Your task to perform on an android device: change timer sound Image 0: 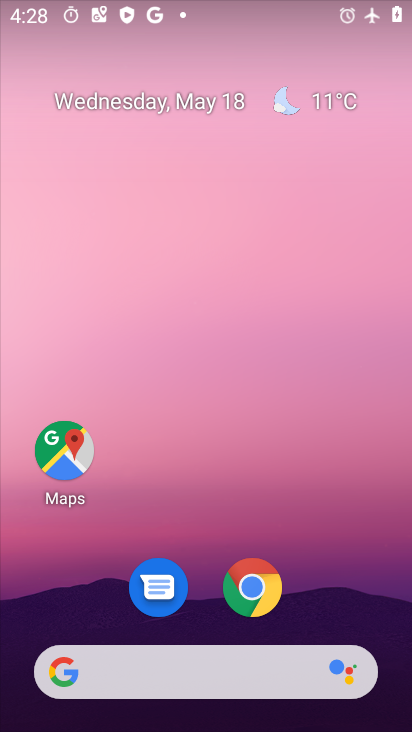
Step 0: drag from (277, 658) to (204, 139)
Your task to perform on an android device: change timer sound Image 1: 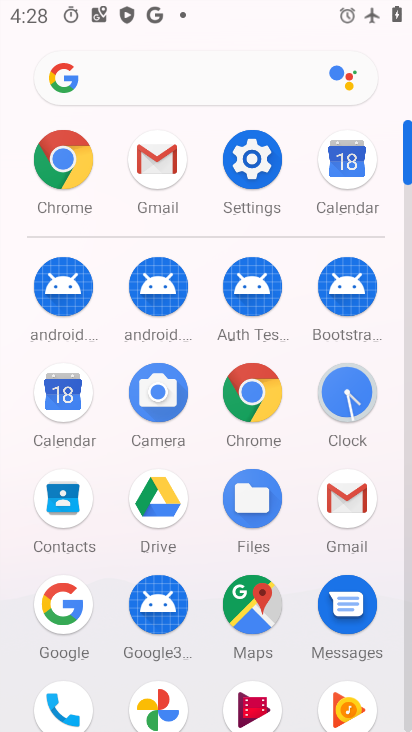
Step 1: click (359, 425)
Your task to perform on an android device: change timer sound Image 2: 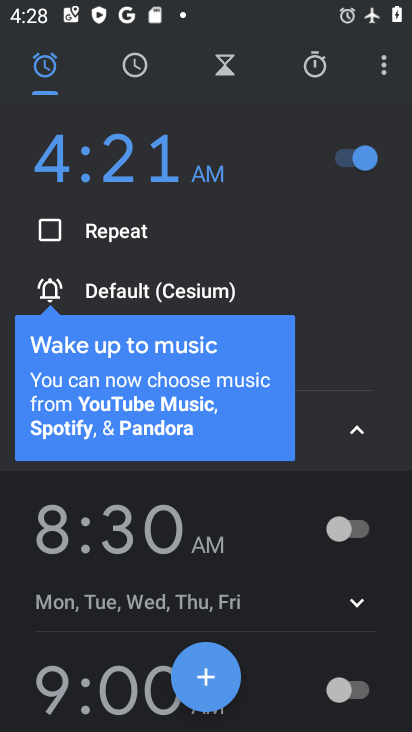
Step 2: click (395, 76)
Your task to perform on an android device: change timer sound Image 3: 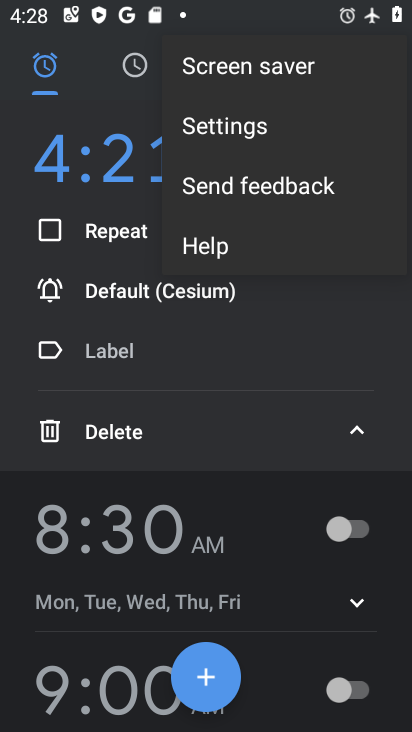
Step 3: click (258, 125)
Your task to perform on an android device: change timer sound Image 4: 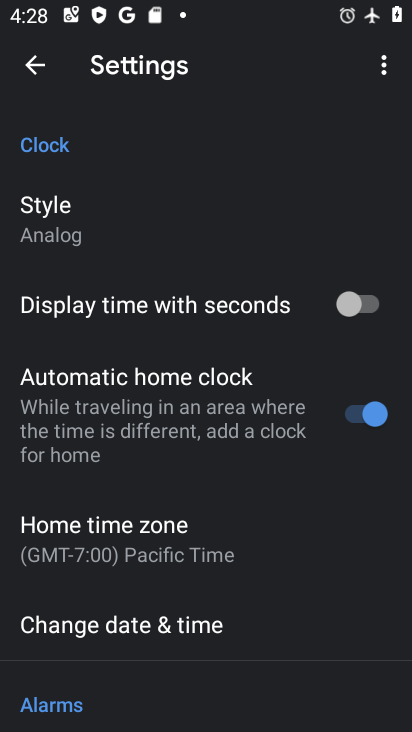
Step 4: drag from (157, 503) to (155, 124)
Your task to perform on an android device: change timer sound Image 5: 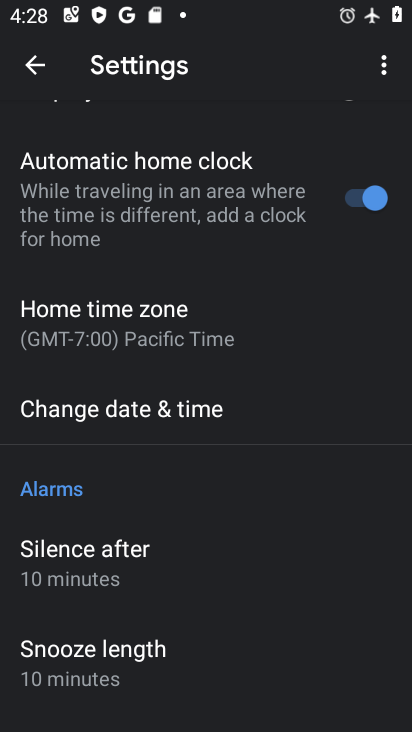
Step 5: drag from (166, 584) to (181, 373)
Your task to perform on an android device: change timer sound Image 6: 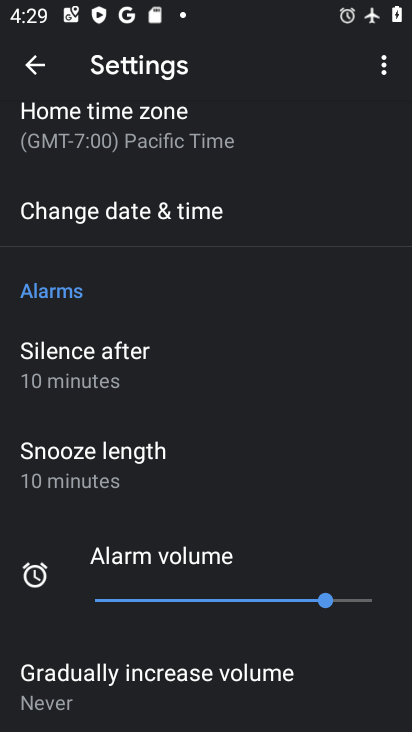
Step 6: drag from (164, 605) to (158, 293)
Your task to perform on an android device: change timer sound Image 7: 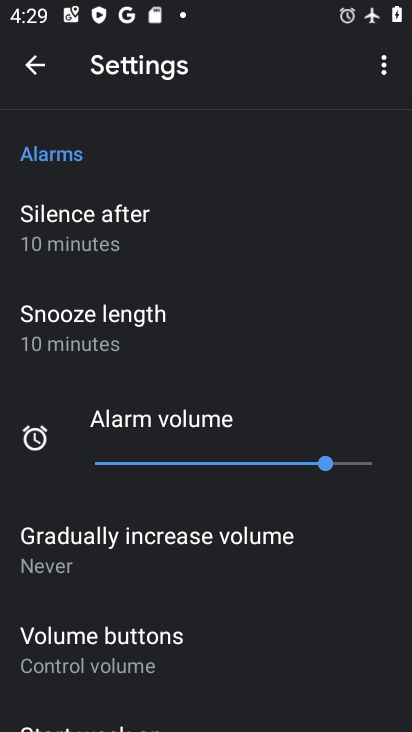
Step 7: drag from (139, 589) to (123, 120)
Your task to perform on an android device: change timer sound Image 8: 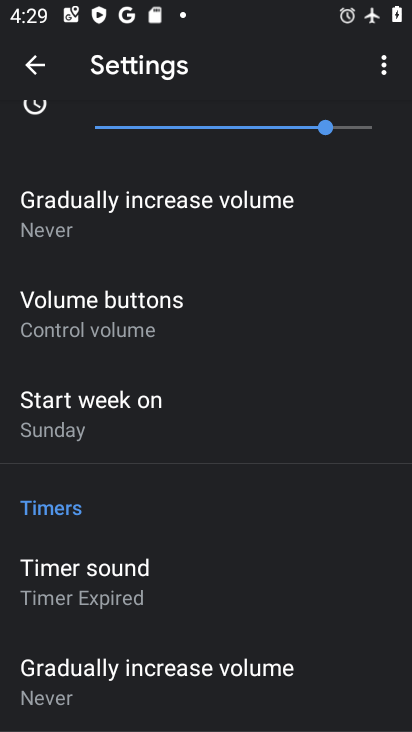
Step 8: drag from (135, 429) to (191, 6)
Your task to perform on an android device: change timer sound Image 9: 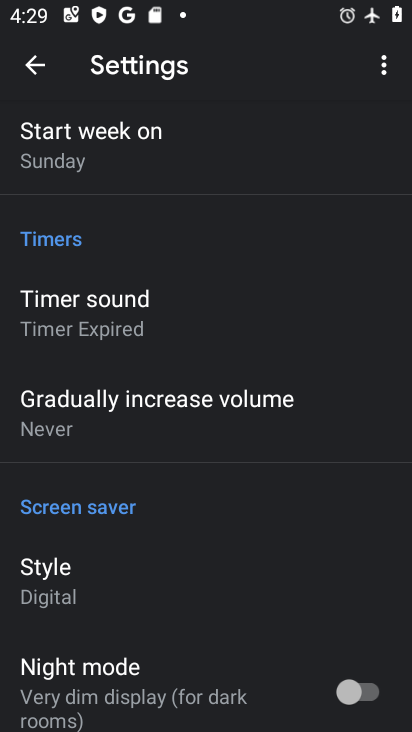
Step 9: click (161, 306)
Your task to perform on an android device: change timer sound Image 10: 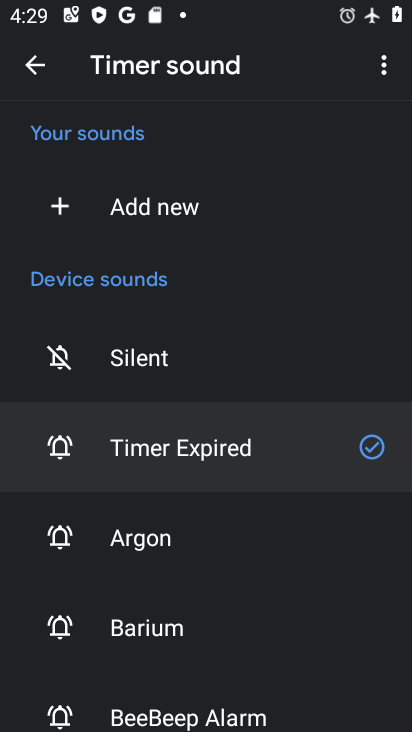
Step 10: click (174, 564)
Your task to perform on an android device: change timer sound Image 11: 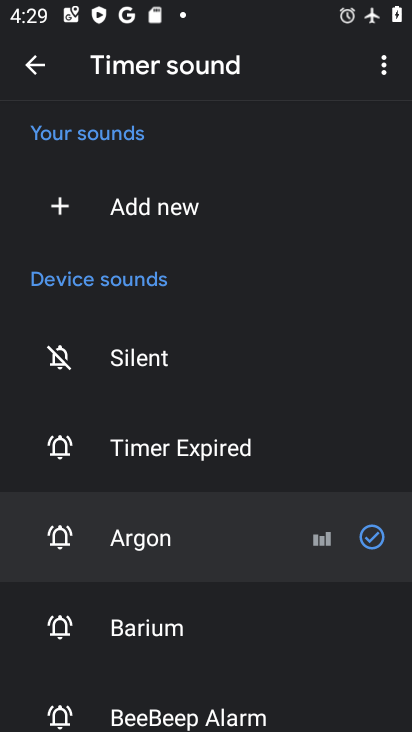
Step 11: task complete